Your task to perform on an android device: Open eBay Image 0: 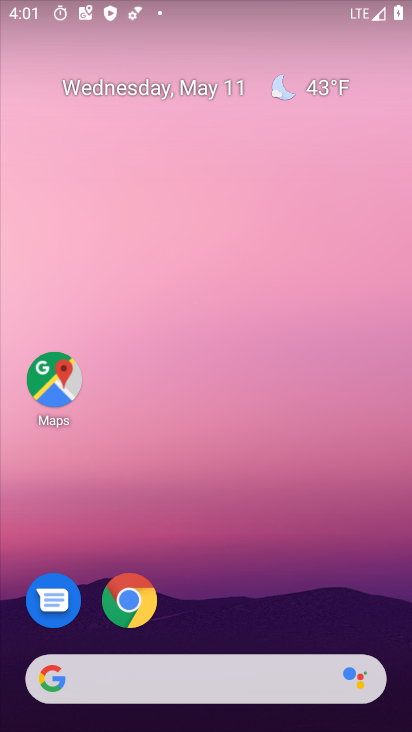
Step 0: click (129, 611)
Your task to perform on an android device: Open eBay Image 1: 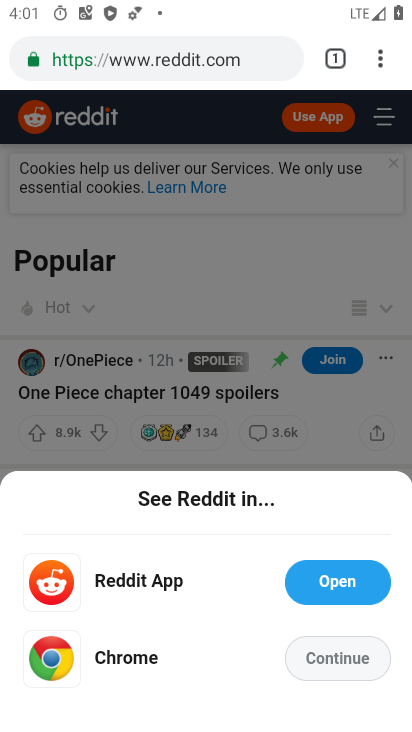
Step 1: click (120, 62)
Your task to perform on an android device: Open eBay Image 2: 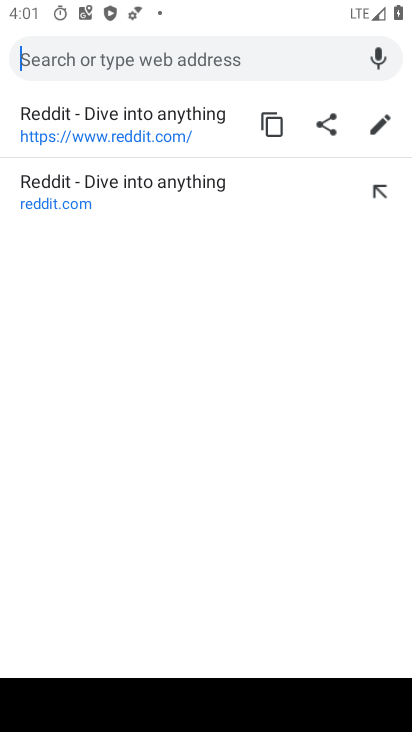
Step 2: type "ebay"
Your task to perform on an android device: Open eBay Image 3: 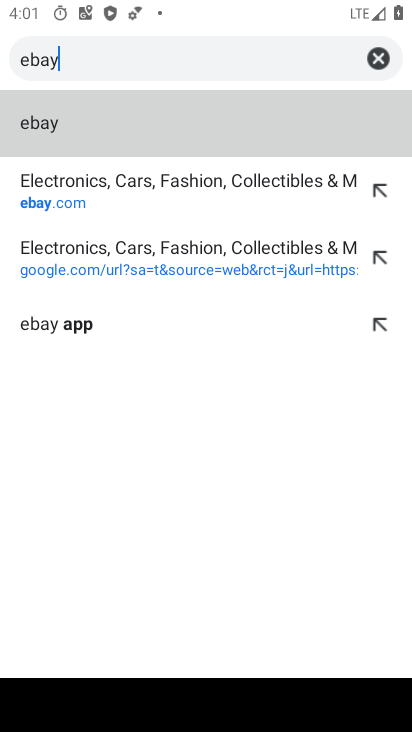
Step 3: click (39, 206)
Your task to perform on an android device: Open eBay Image 4: 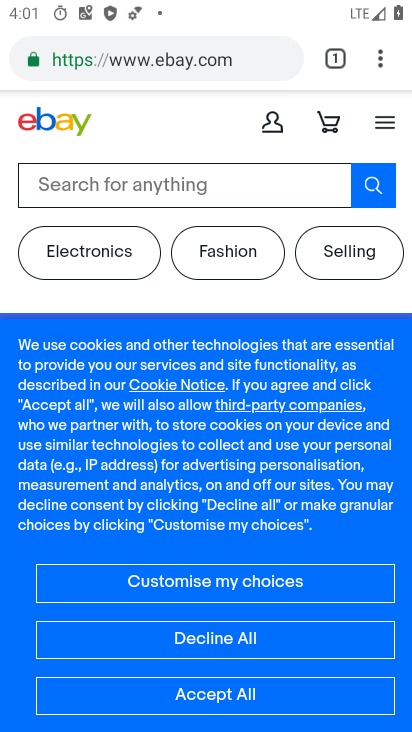
Step 4: task complete